Your task to perform on an android device: Open Chrome and go to settings Image 0: 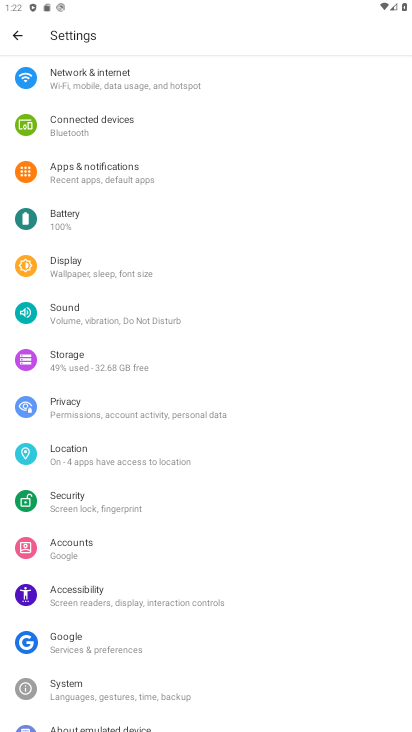
Step 0: press home button
Your task to perform on an android device: Open Chrome and go to settings Image 1: 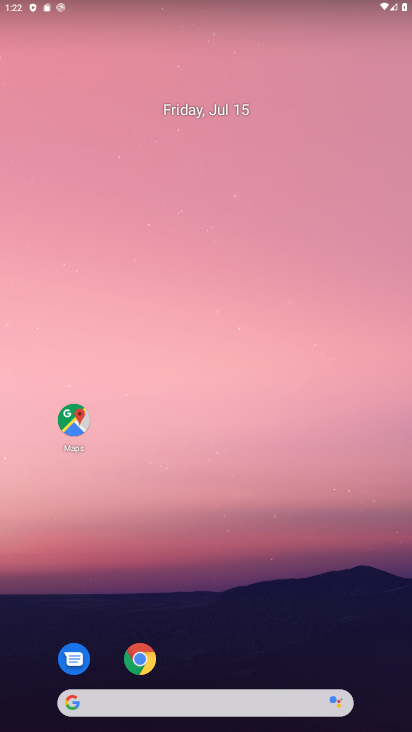
Step 1: drag from (230, 555) to (196, 87)
Your task to perform on an android device: Open Chrome and go to settings Image 2: 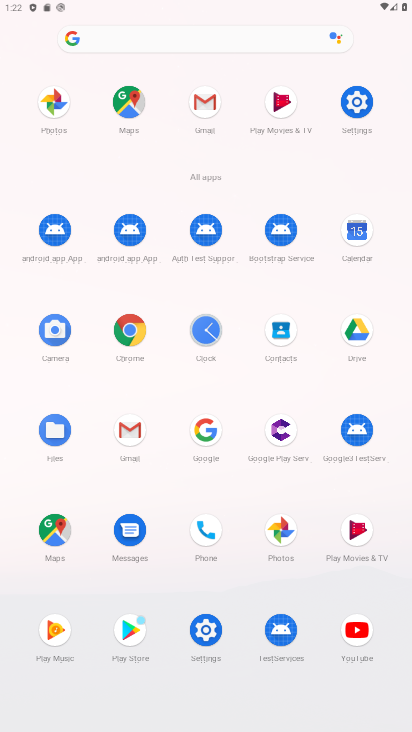
Step 2: click (134, 337)
Your task to perform on an android device: Open Chrome and go to settings Image 3: 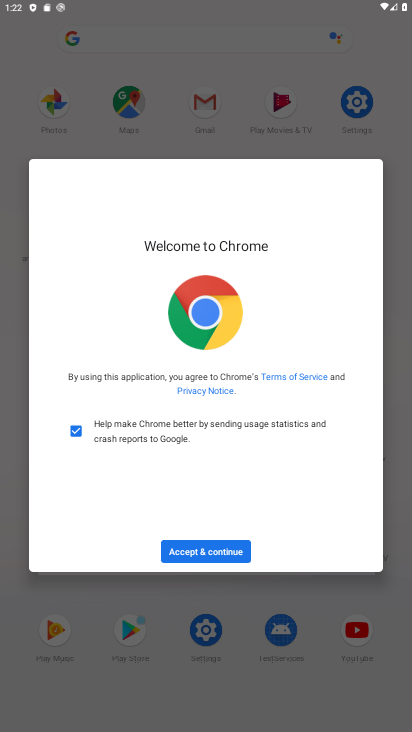
Step 3: click (203, 542)
Your task to perform on an android device: Open Chrome and go to settings Image 4: 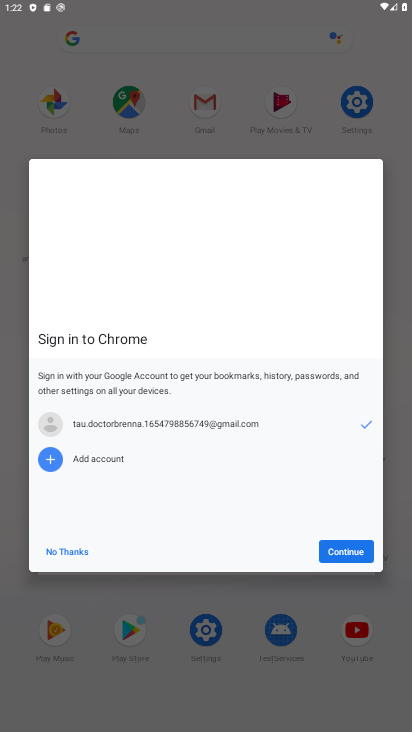
Step 4: click (337, 549)
Your task to perform on an android device: Open Chrome and go to settings Image 5: 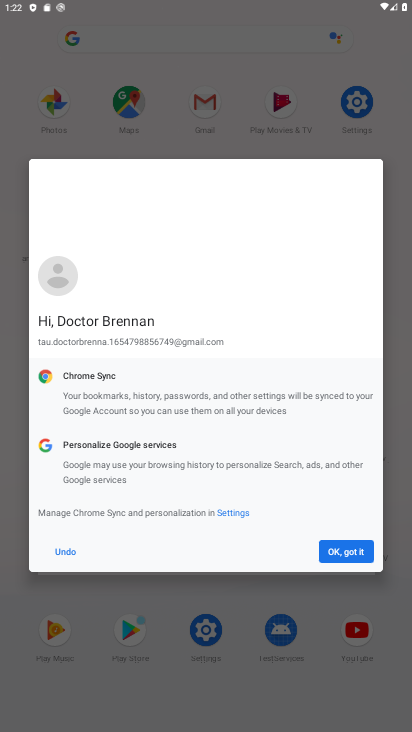
Step 5: click (354, 550)
Your task to perform on an android device: Open Chrome and go to settings Image 6: 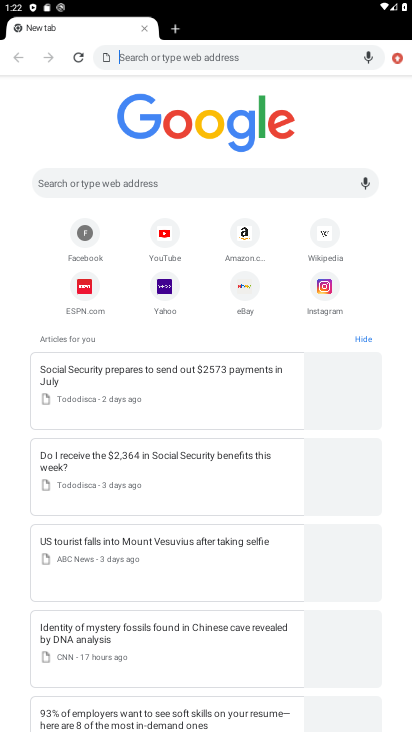
Step 6: task complete